Your task to perform on an android device: change timer sound Image 0: 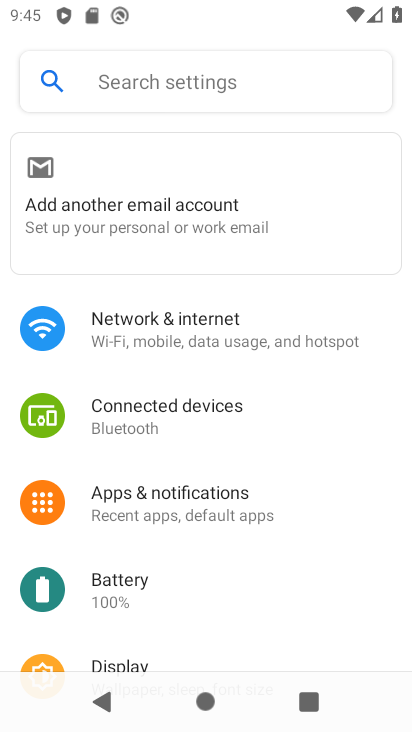
Step 0: press home button
Your task to perform on an android device: change timer sound Image 1: 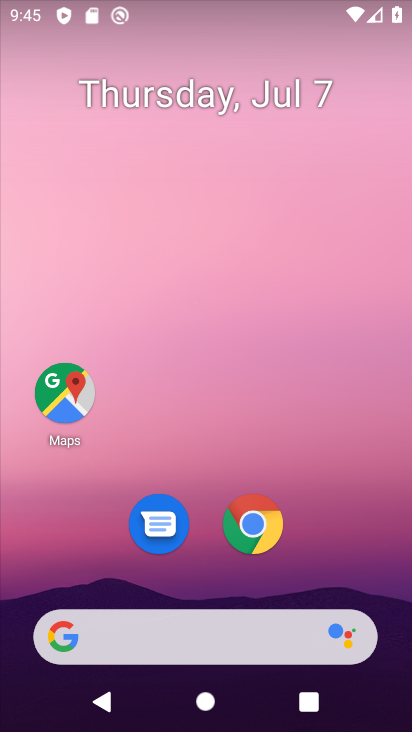
Step 1: drag from (333, 500) to (337, 15)
Your task to perform on an android device: change timer sound Image 2: 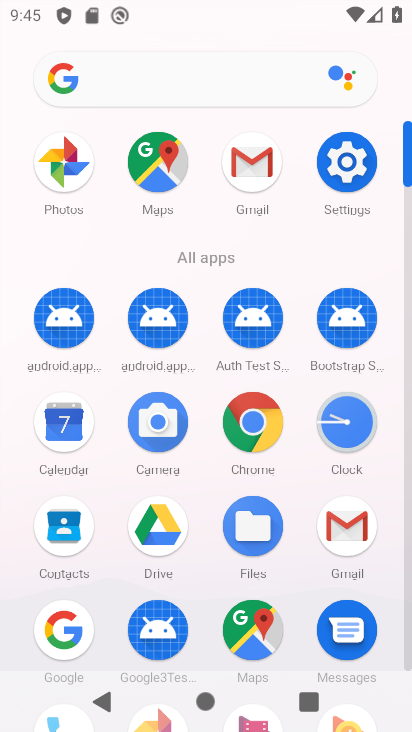
Step 2: click (345, 425)
Your task to perform on an android device: change timer sound Image 3: 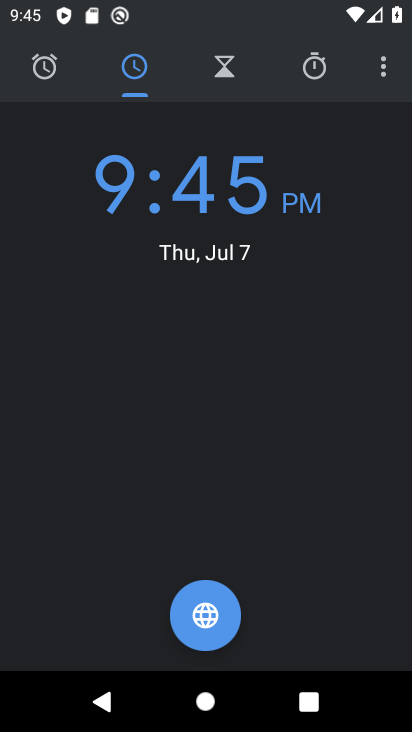
Step 3: click (385, 66)
Your task to perform on an android device: change timer sound Image 4: 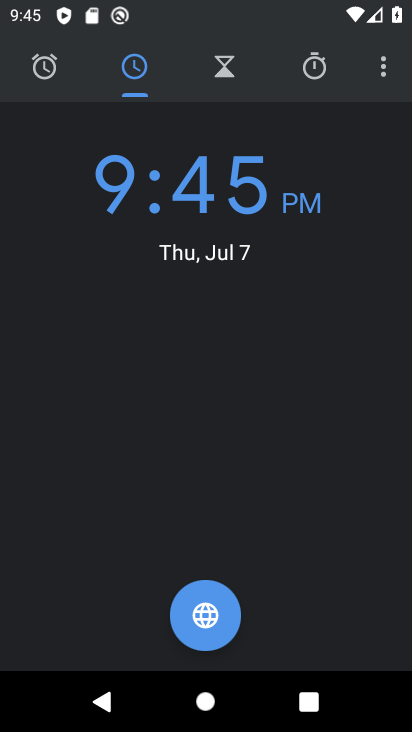
Step 4: click (385, 66)
Your task to perform on an android device: change timer sound Image 5: 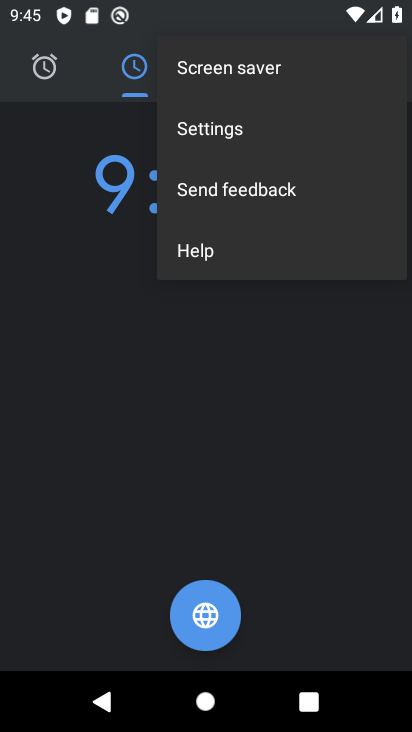
Step 5: click (291, 133)
Your task to perform on an android device: change timer sound Image 6: 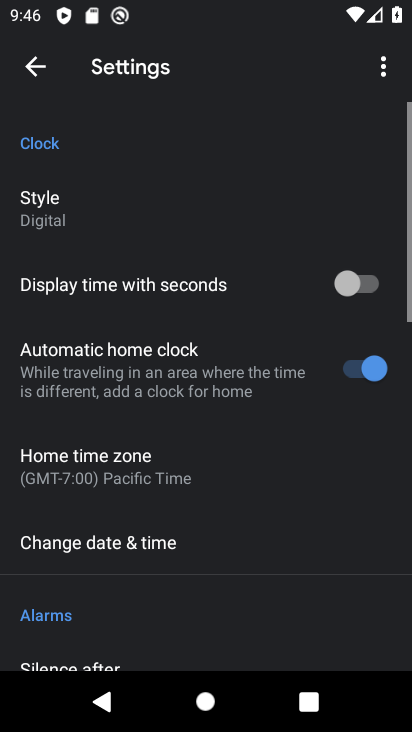
Step 6: drag from (197, 527) to (205, 75)
Your task to perform on an android device: change timer sound Image 7: 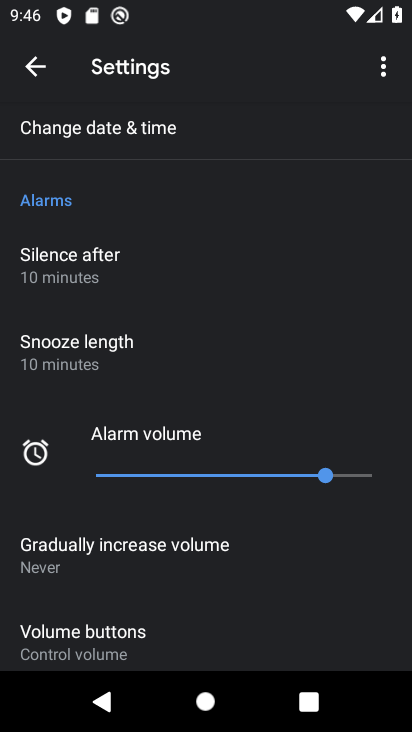
Step 7: drag from (189, 578) to (204, 150)
Your task to perform on an android device: change timer sound Image 8: 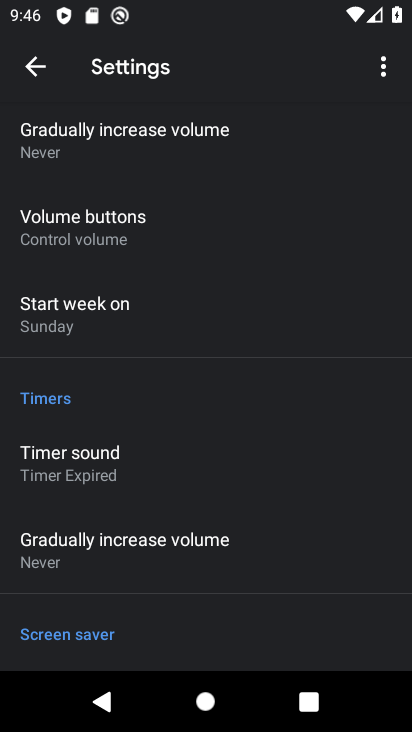
Step 8: click (116, 458)
Your task to perform on an android device: change timer sound Image 9: 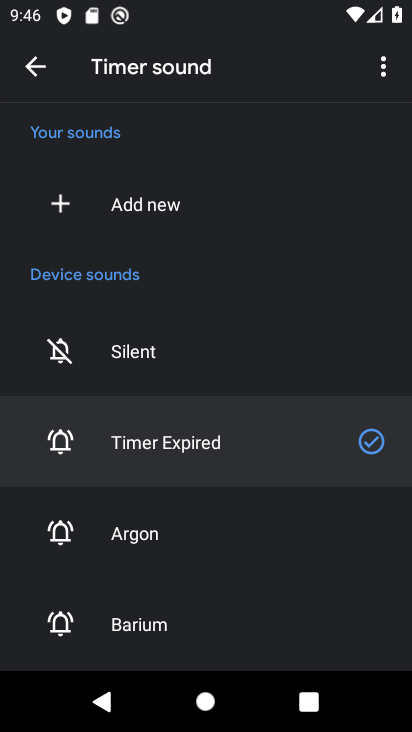
Step 9: click (125, 541)
Your task to perform on an android device: change timer sound Image 10: 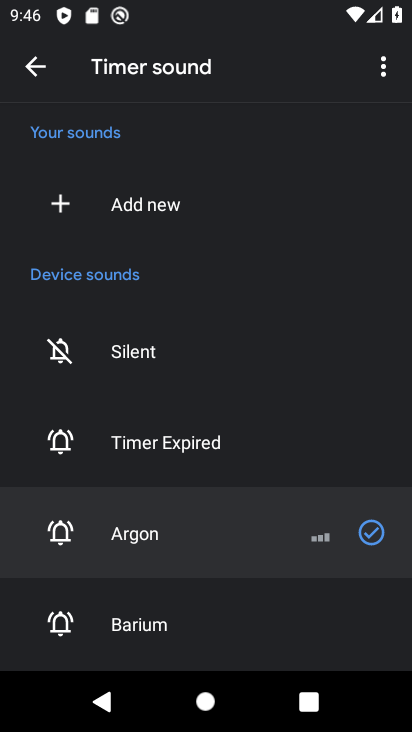
Step 10: task complete